Your task to perform on an android device: Open accessibility settings Image 0: 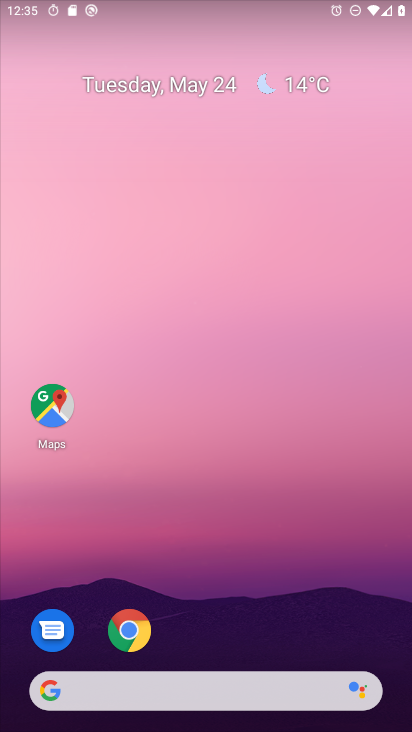
Step 0: drag from (298, 503) to (271, 225)
Your task to perform on an android device: Open accessibility settings Image 1: 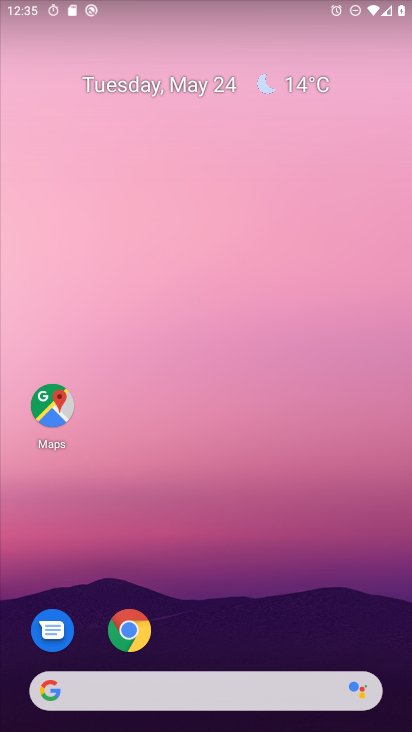
Step 1: drag from (299, 624) to (278, 162)
Your task to perform on an android device: Open accessibility settings Image 2: 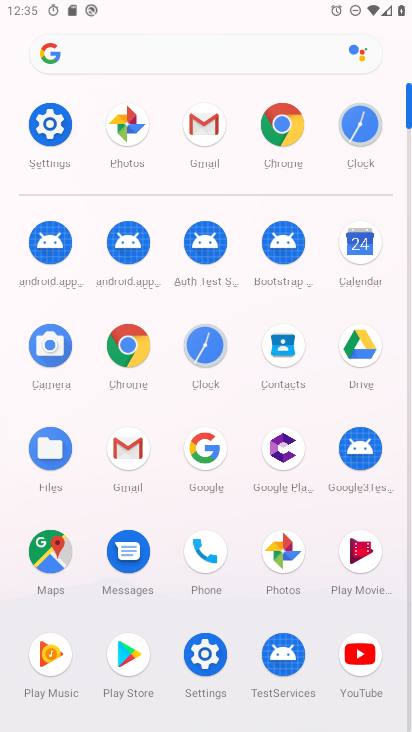
Step 2: click (53, 129)
Your task to perform on an android device: Open accessibility settings Image 3: 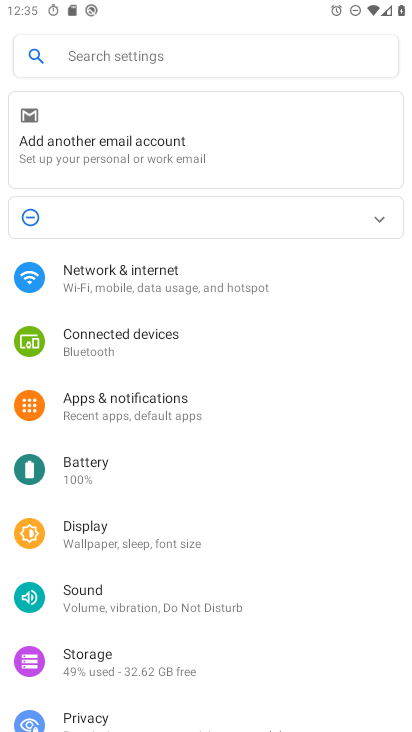
Step 3: drag from (199, 593) to (239, 258)
Your task to perform on an android device: Open accessibility settings Image 4: 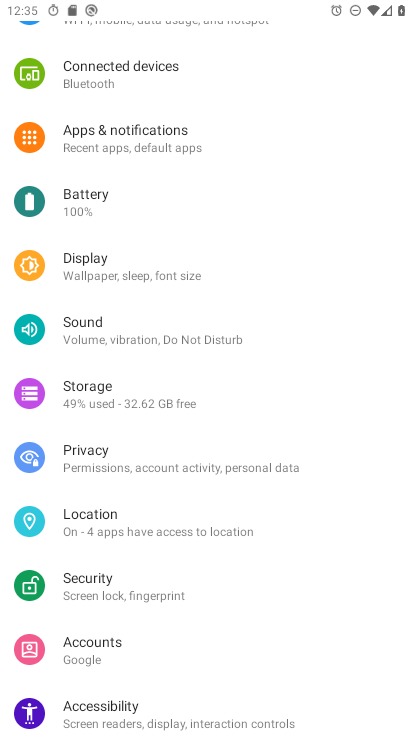
Step 4: drag from (211, 602) to (248, 329)
Your task to perform on an android device: Open accessibility settings Image 5: 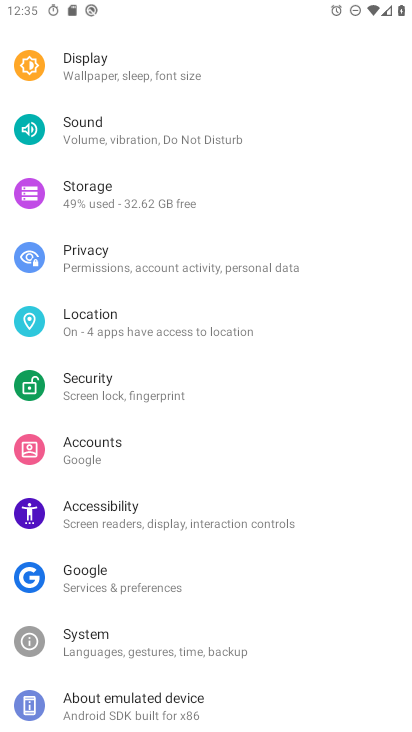
Step 5: click (179, 520)
Your task to perform on an android device: Open accessibility settings Image 6: 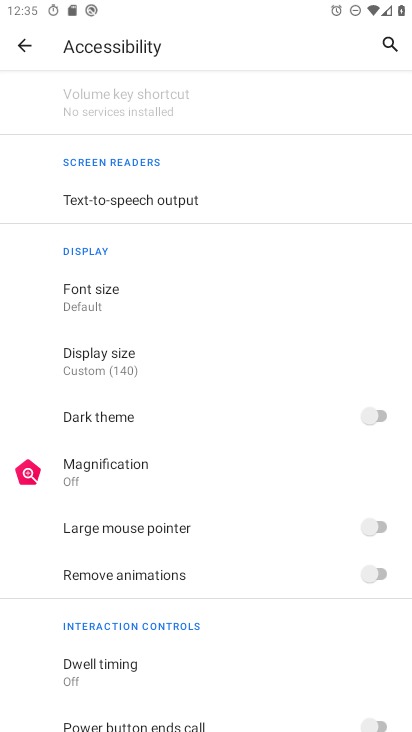
Step 6: task complete